Your task to perform on an android device: check google app version Image 0: 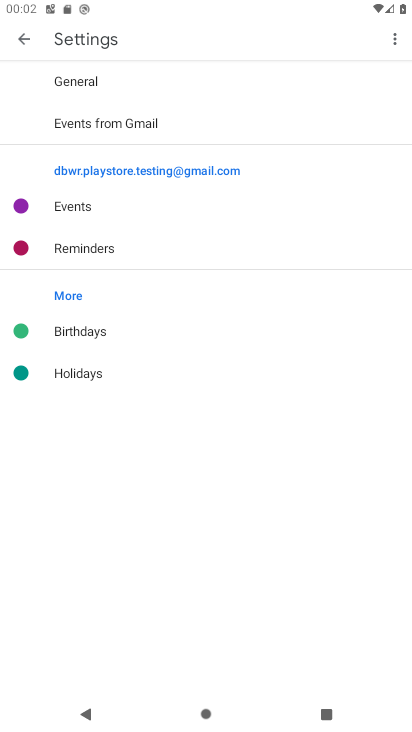
Step 0: press home button
Your task to perform on an android device: check google app version Image 1: 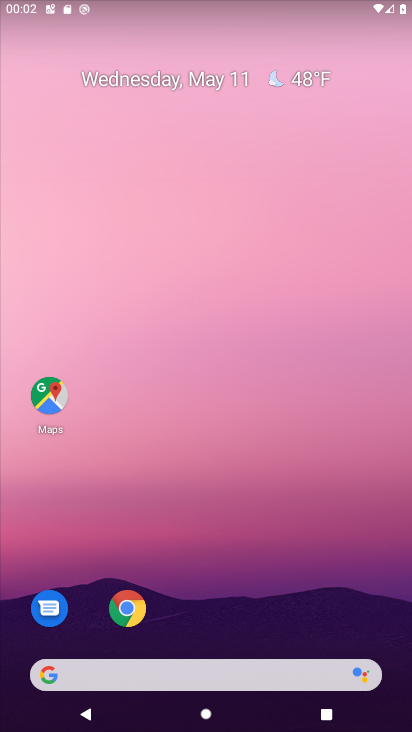
Step 1: drag from (228, 513) to (193, 285)
Your task to perform on an android device: check google app version Image 2: 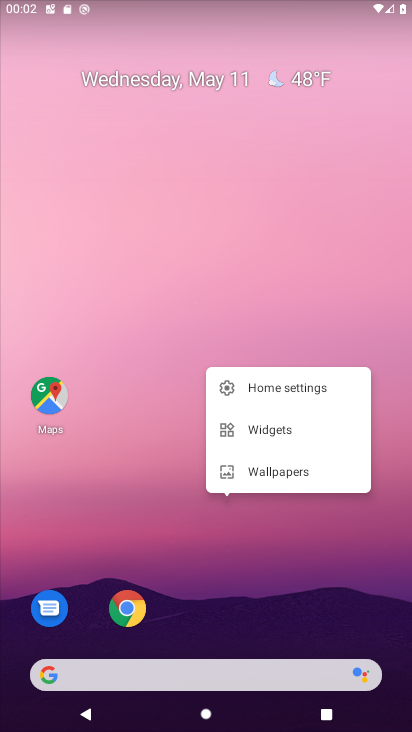
Step 2: click (193, 285)
Your task to perform on an android device: check google app version Image 3: 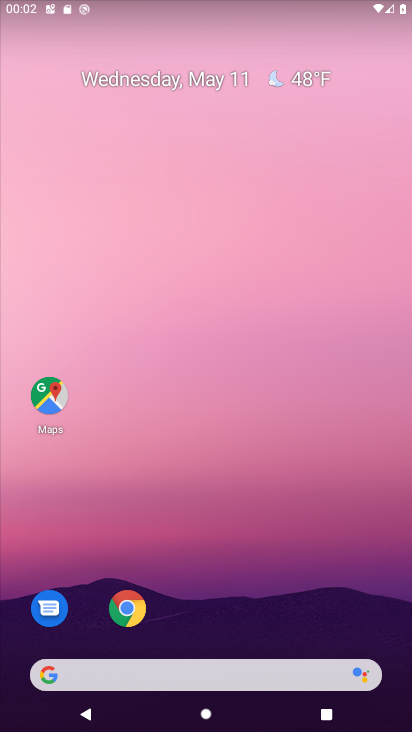
Step 3: drag from (225, 618) to (113, 233)
Your task to perform on an android device: check google app version Image 4: 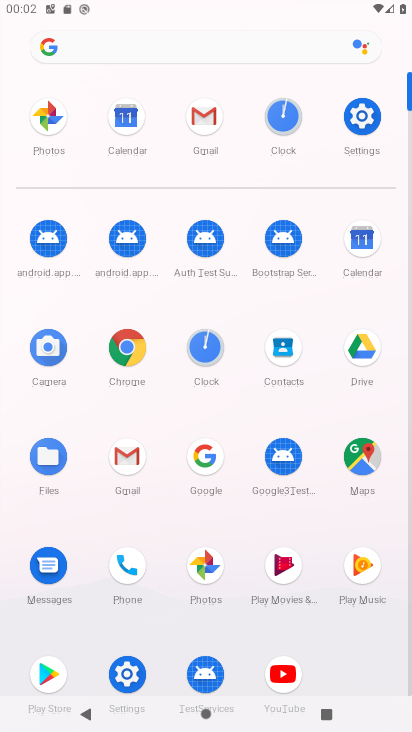
Step 4: click (209, 477)
Your task to perform on an android device: check google app version Image 5: 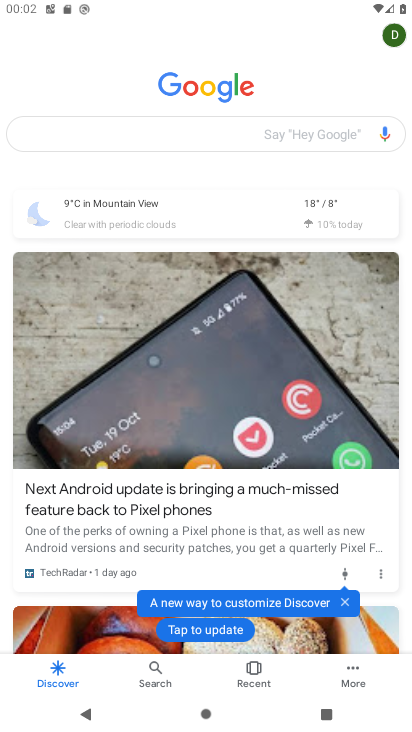
Step 5: click (348, 669)
Your task to perform on an android device: check google app version Image 6: 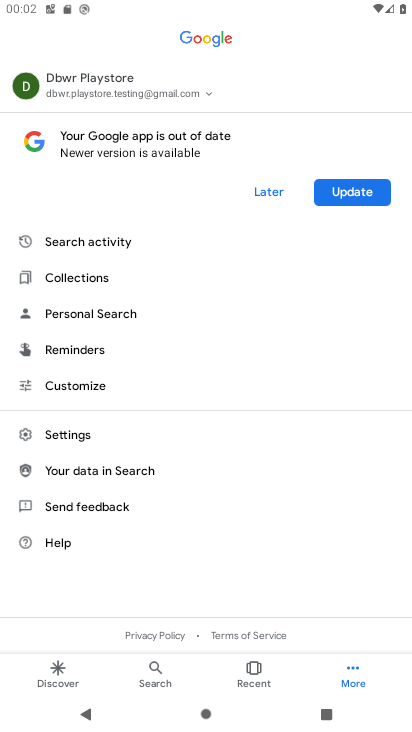
Step 6: click (185, 422)
Your task to perform on an android device: check google app version Image 7: 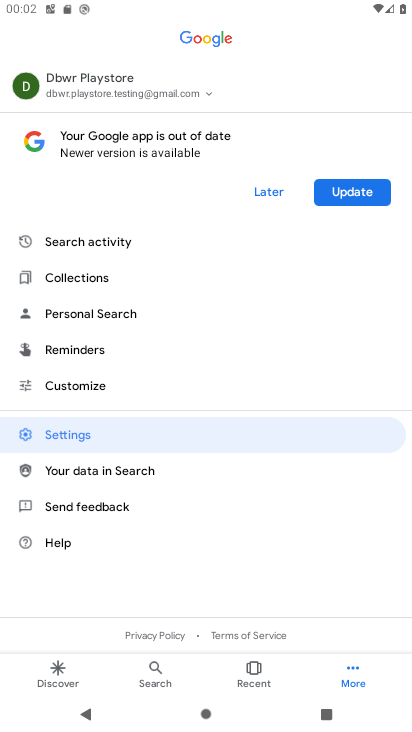
Step 7: click (185, 422)
Your task to perform on an android device: check google app version Image 8: 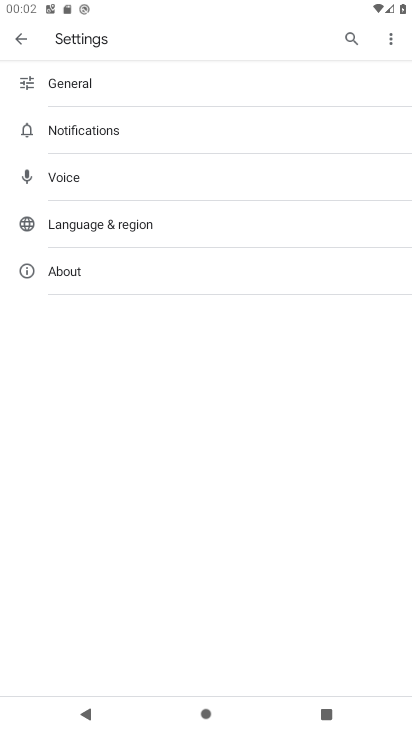
Step 8: click (166, 284)
Your task to perform on an android device: check google app version Image 9: 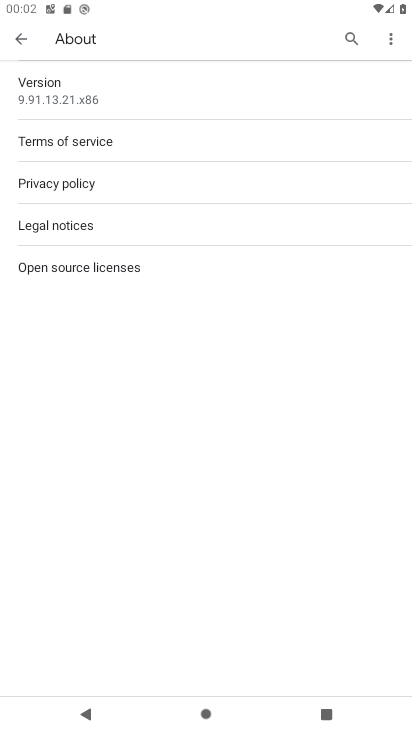
Step 9: task complete